Your task to perform on an android device: move an email to a new category in the gmail app Image 0: 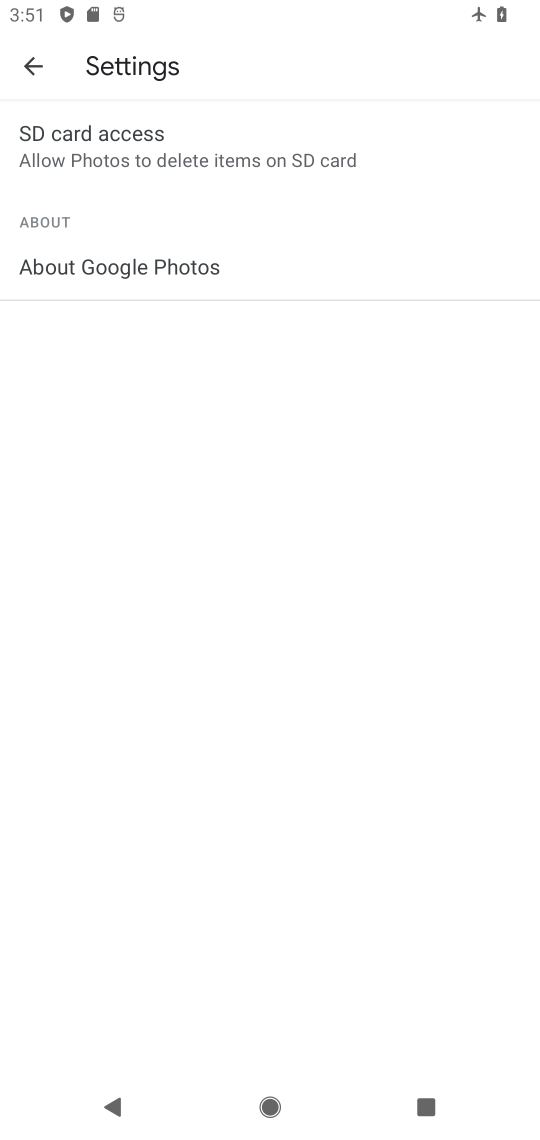
Step 0: press home button
Your task to perform on an android device: move an email to a new category in the gmail app Image 1: 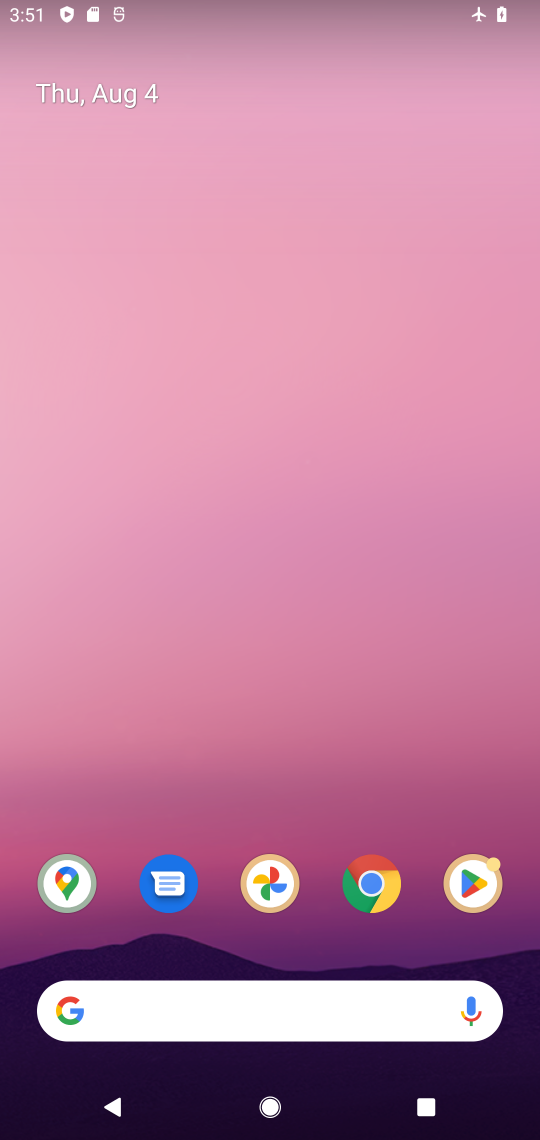
Step 1: drag from (433, 811) to (161, 71)
Your task to perform on an android device: move an email to a new category in the gmail app Image 2: 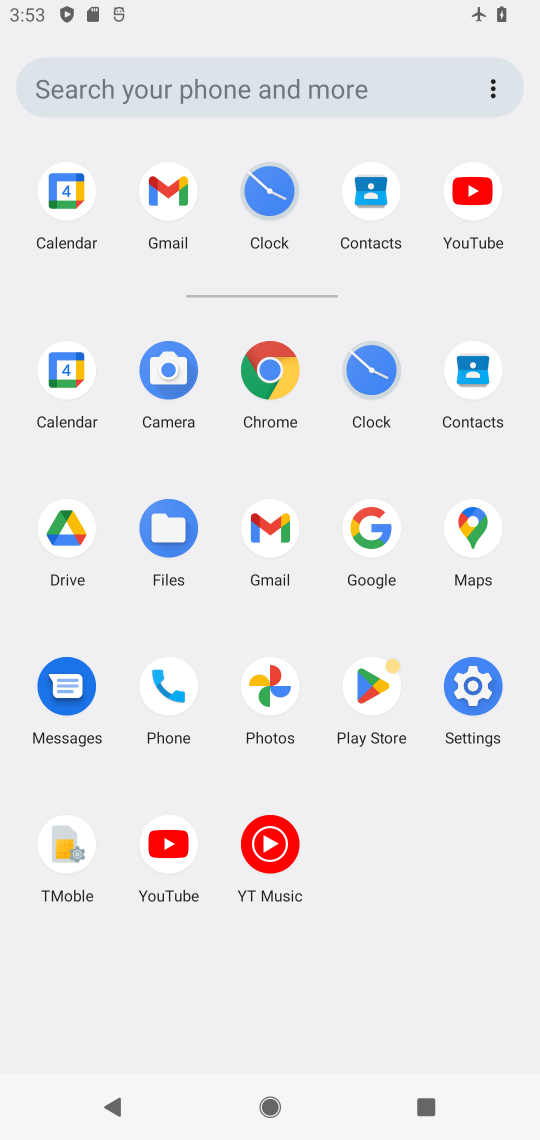
Step 2: click (275, 541)
Your task to perform on an android device: move an email to a new category in the gmail app Image 3: 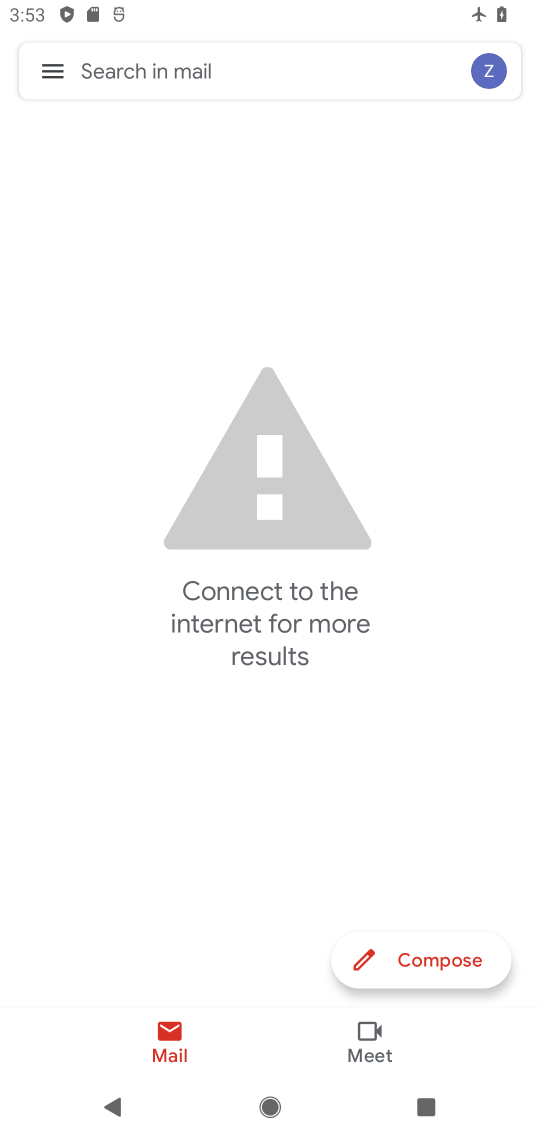
Step 3: task complete